Your task to perform on an android device: See recent photos Image 0: 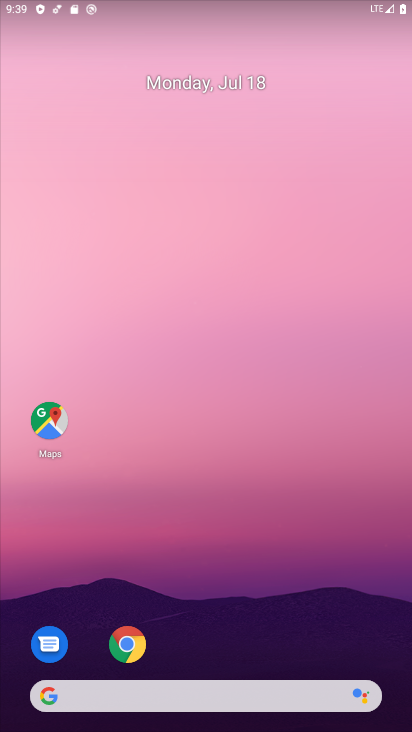
Step 0: drag from (345, 641) to (392, 219)
Your task to perform on an android device: See recent photos Image 1: 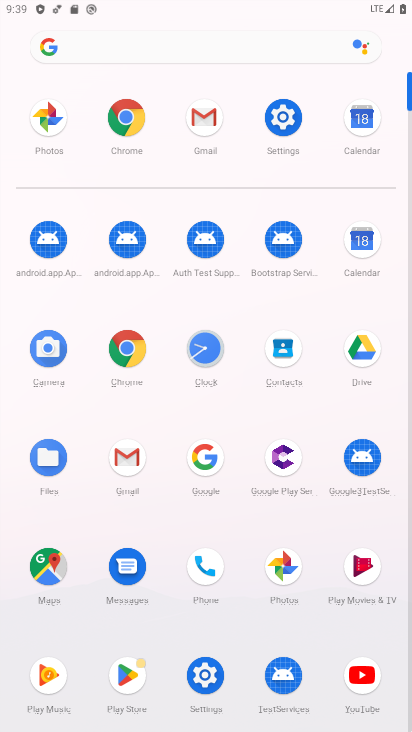
Step 1: click (288, 574)
Your task to perform on an android device: See recent photos Image 2: 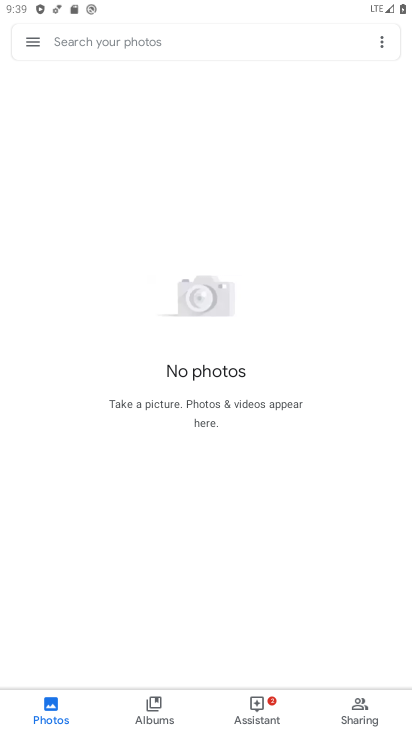
Step 2: task complete